Your task to perform on an android device: Search for pizza restaurants on Maps Image 0: 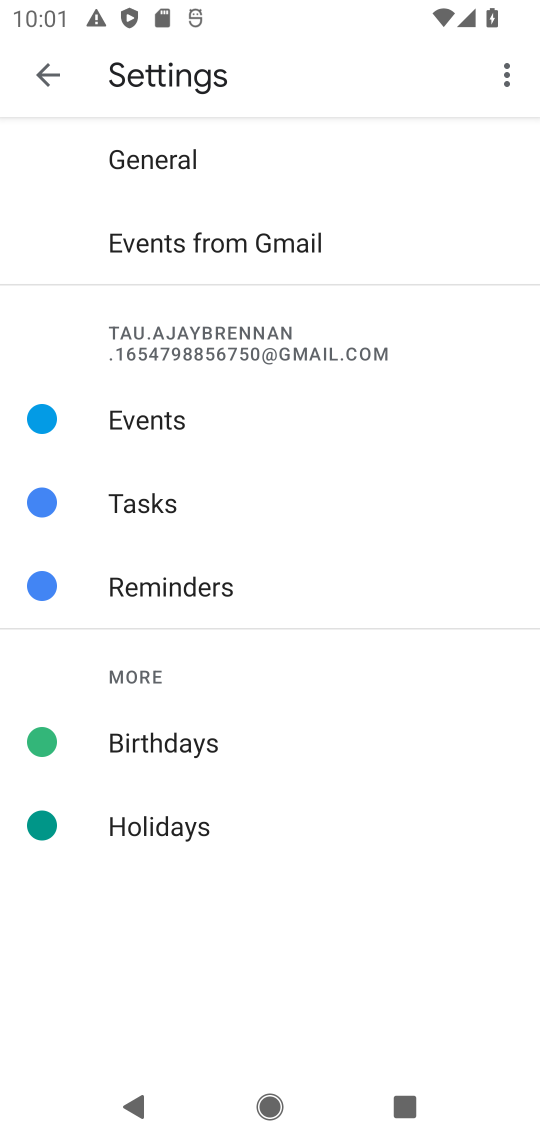
Step 0: press home button
Your task to perform on an android device: Search for pizza restaurants on Maps Image 1: 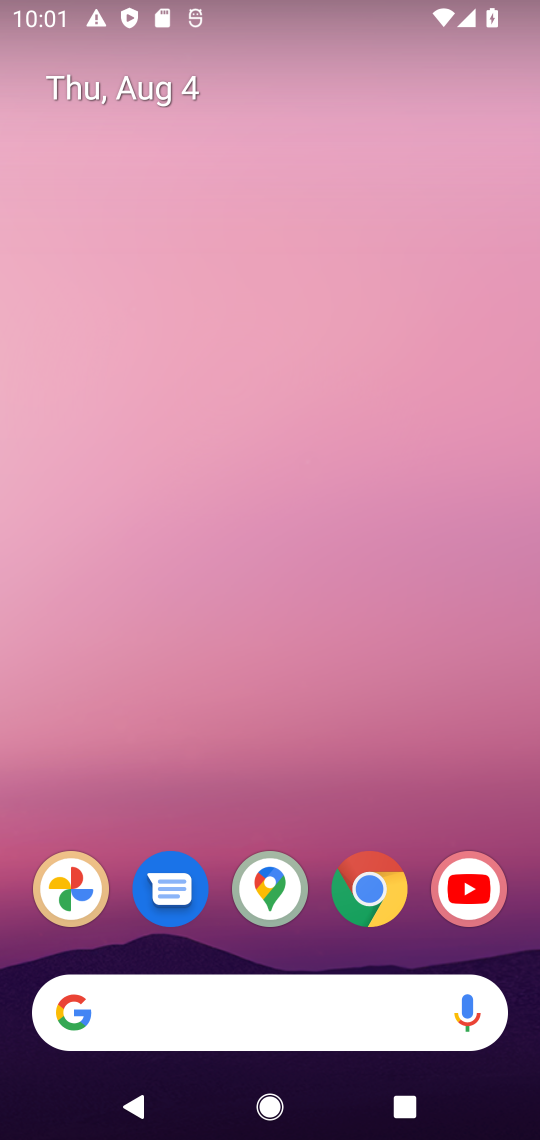
Step 1: drag from (344, 807) to (402, 271)
Your task to perform on an android device: Search for pizza restaurants on Maps Image 2: 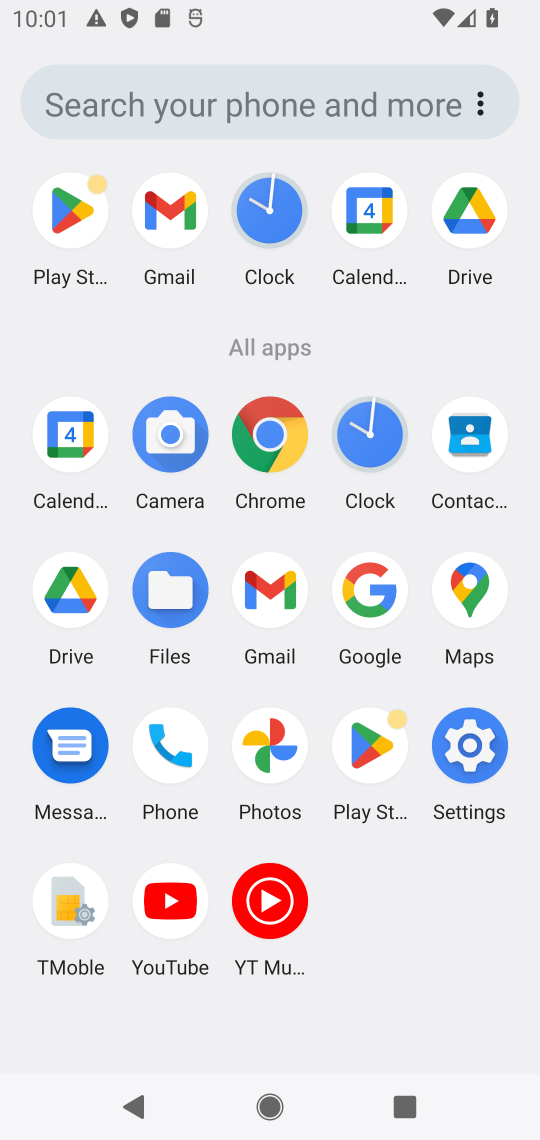
Step 2: click (471, 596)
Your task to perform on an android device: Search for pizza restaurants on Maps Image 3: 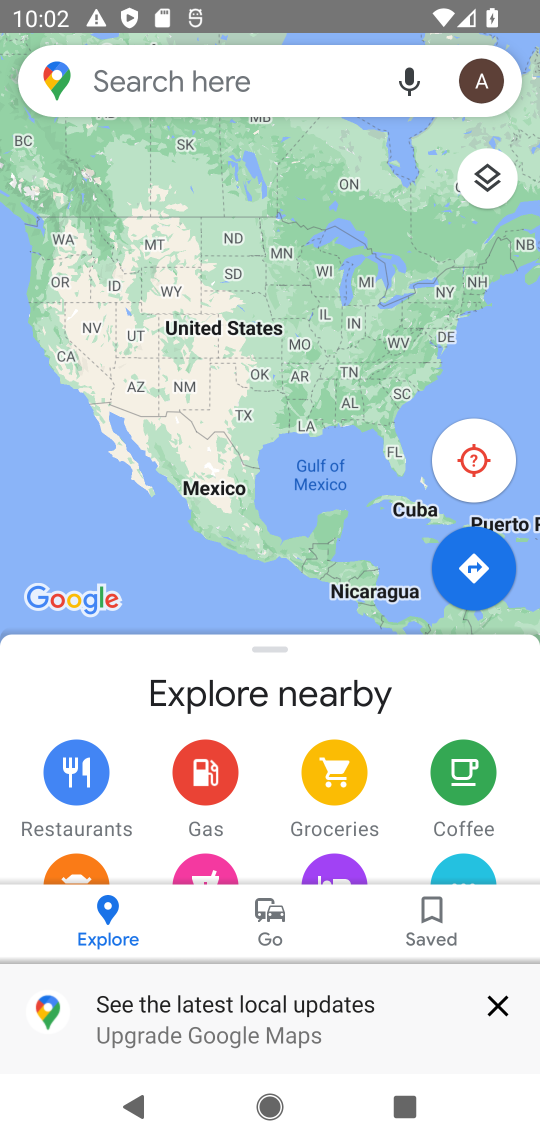
Step 3: click (261, 81)
Your task to perform on an android device: Search for pizza restaurants on Maps Image 4: 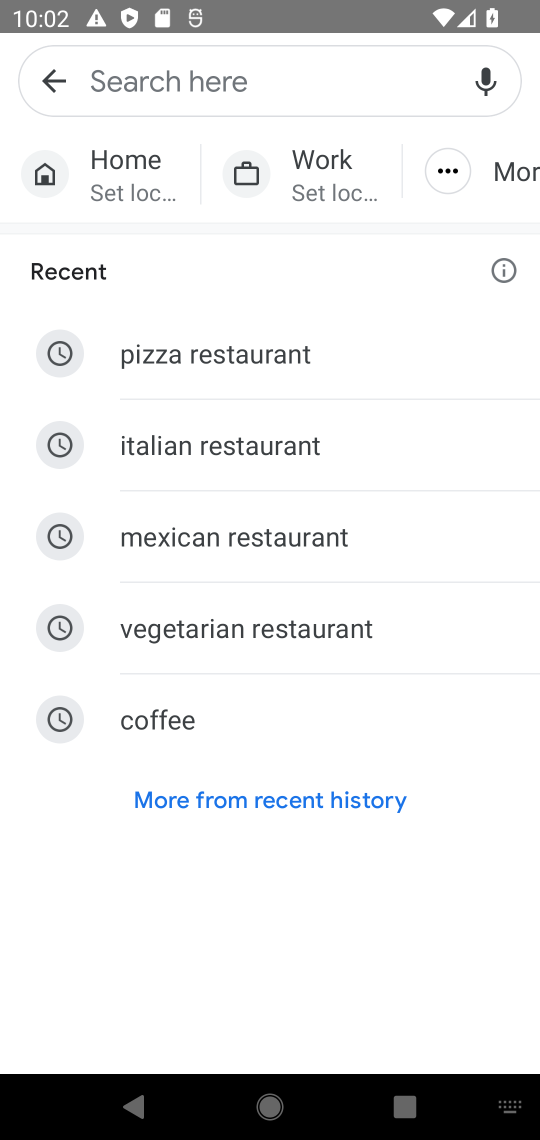
Step 4: type "pizza restaurants"
Your task to perform on an android device: Search for pizza restaurants on Maps Image 5: 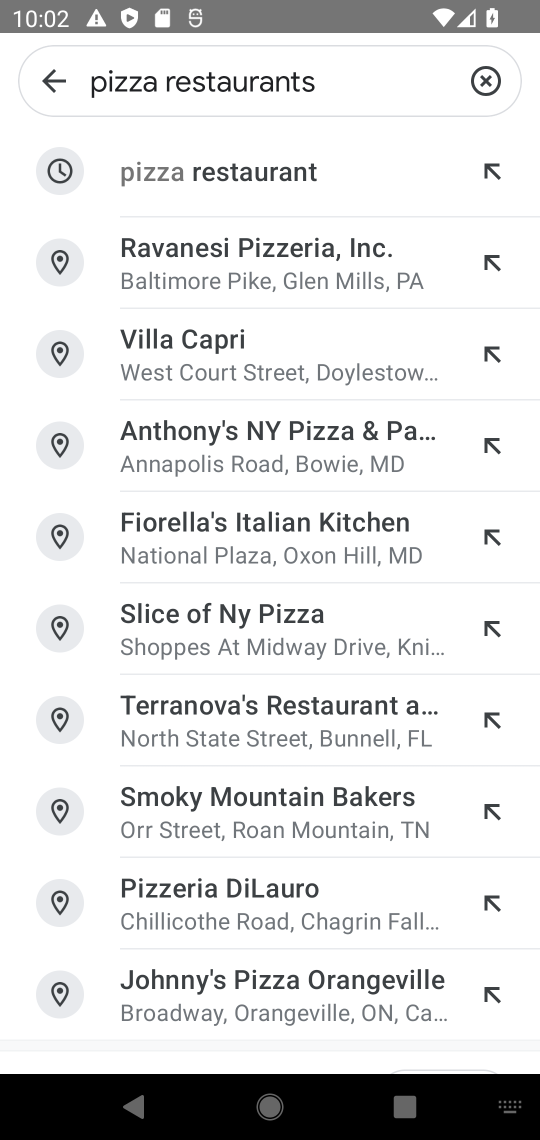
Step 5: click (284, 171)
Your task to perform on an android device: Search for pizza restaurants on Maps Image 6: 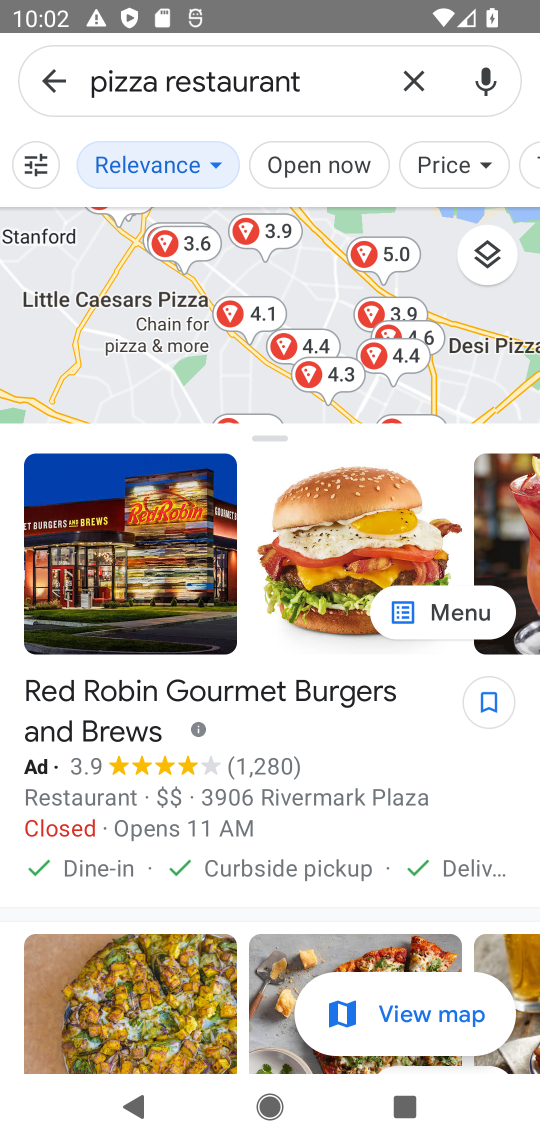
Step 6: task complete